Your task to perform on an android device: Turn off the flashlight Image 0: 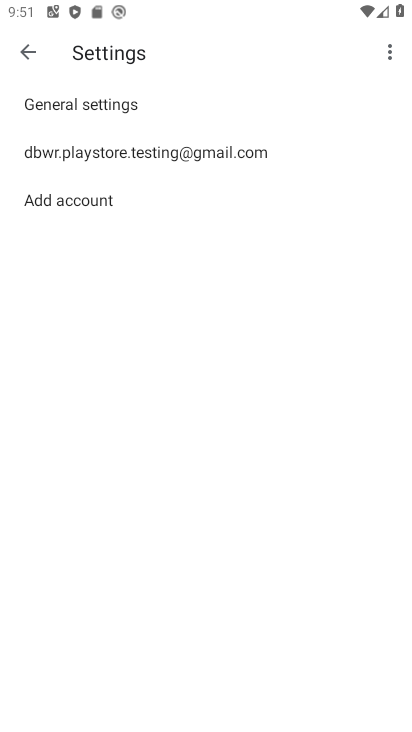
Step 0: press home button
Your task to perform on an android device: Turn off the flashlight Image 1: 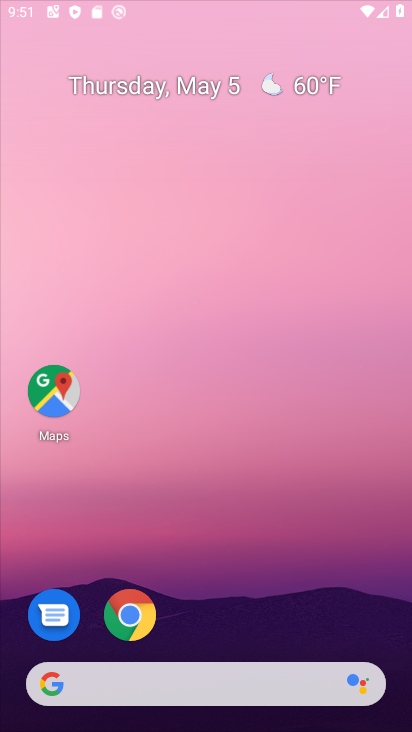
Step 1: press home button
Your task to perform on an android device: Turn off the flashlight Image 2: 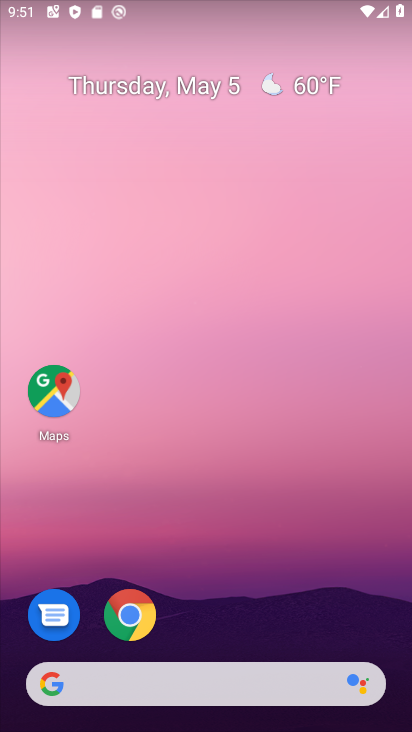
Step 2: drag from (218, 619) to (260, 120)
Your task to perform on an android device: Turn off the flashlight Image 3: 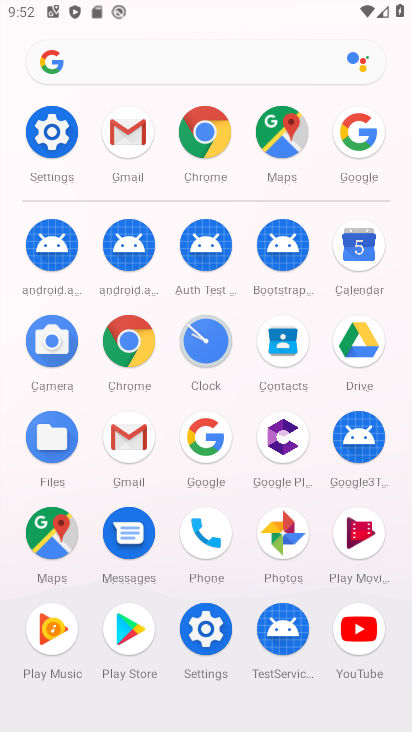
Step 3: click (51, 132)
Your task to perform on an android device: Turn off the flashlight Image 4: 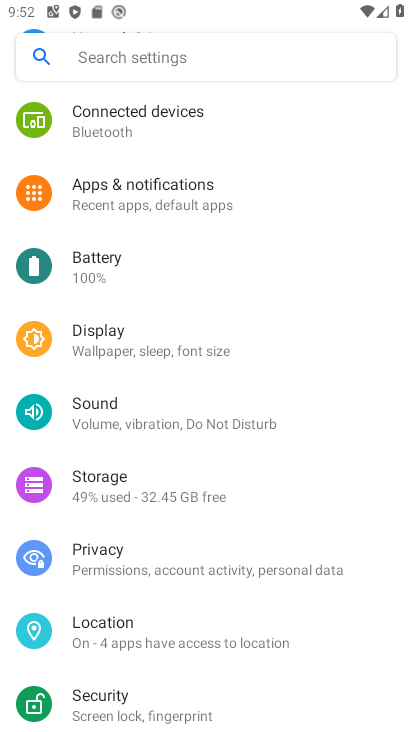
Step 4: click (192, 65)
Your task to perform on an android device: Turn off the flashlight Image 5: 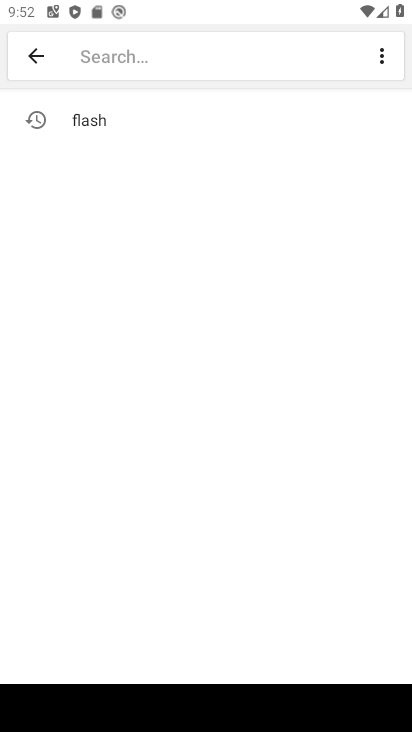
Step 5: type "flash"
Your task to perform on an android device: Turn off the flashlight Image 6: 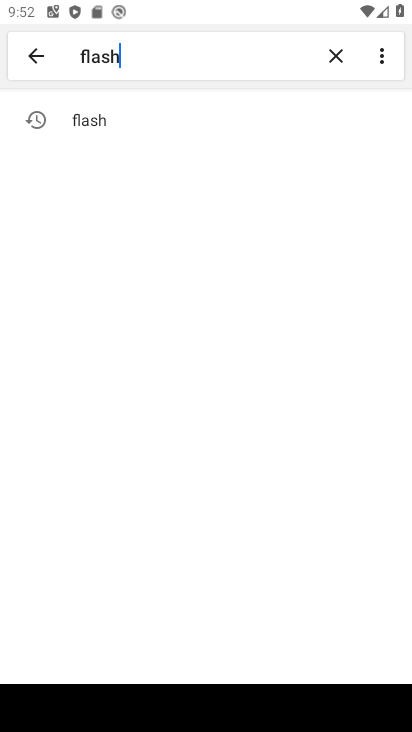
Step 6: click (153, 105)
Your task to perform on an android device: Turn off the flashlight Image 7: 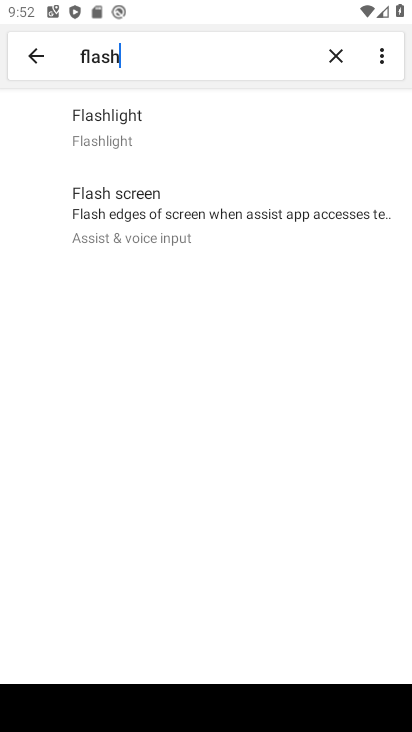
Step 7: click (161, 131)
Your task to perform on an android device: Turn off the flashlight Image 8: 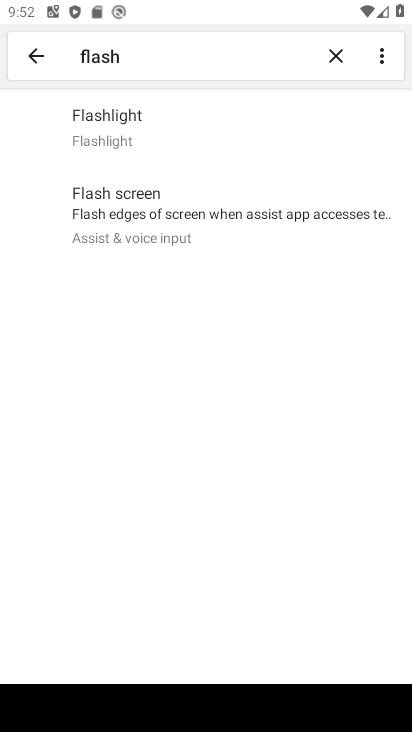
Step 8: task complete